Your task to perform on an android device: Open Google Chrome and open the bookmarks view Image 0: 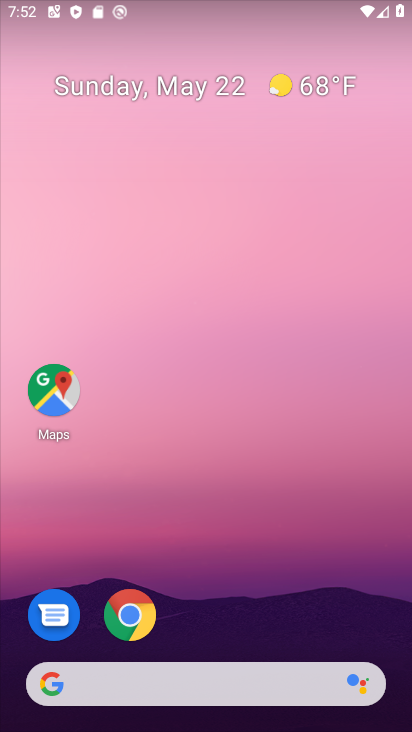
Step 0: click (135, 626)
Your task to perform on an android device: Open Google Chrome and open the bookmarks view Image 1: 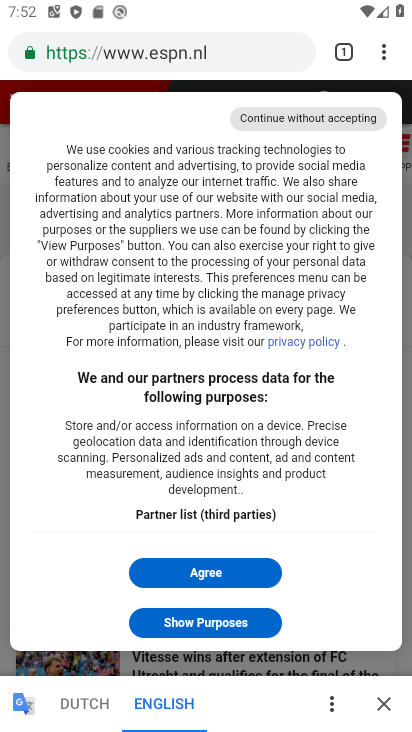
Step 1: click (216, 567)
Your task to perform on an android device: Open Google Chrome and open the bookmarks view Image 2: 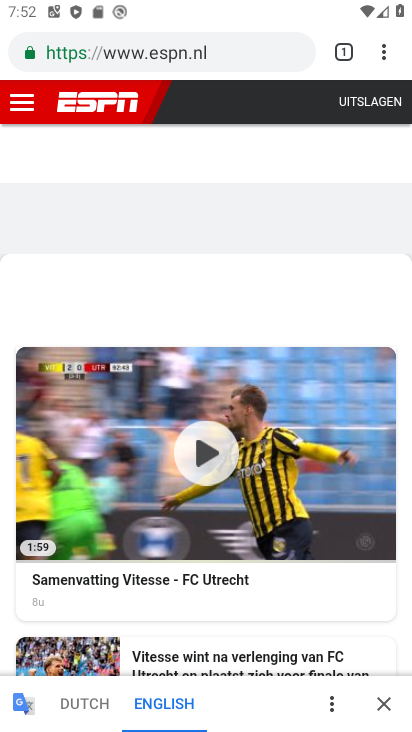
Step 2: click (384, 46)
Your task to perform on an android device: Open Google Chrome and open the bookmarks view Image 3: 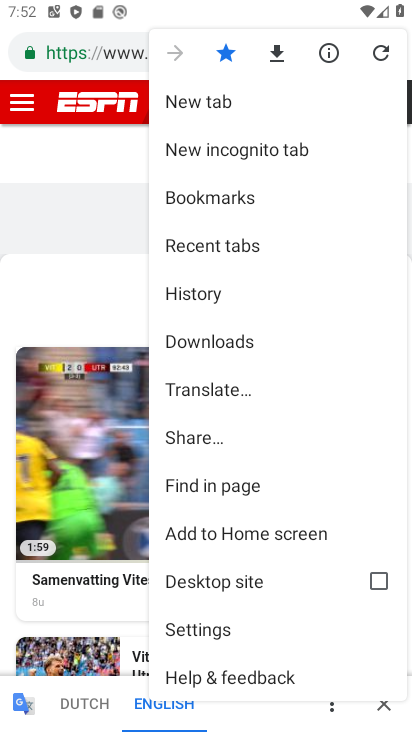
Step 3: click (231, 201)
Your task to perform on an android device: Open Google Chrome and open the bookmarks view Image 4: 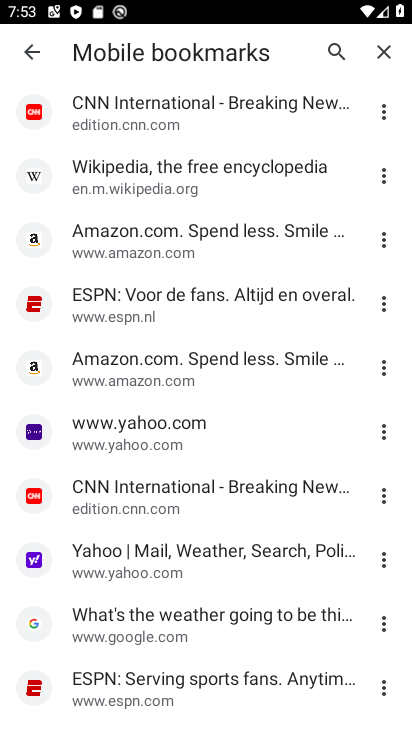
Step 4: task complete